Your task to perform on an android device: turn pop-ups on in chrome Image 0: 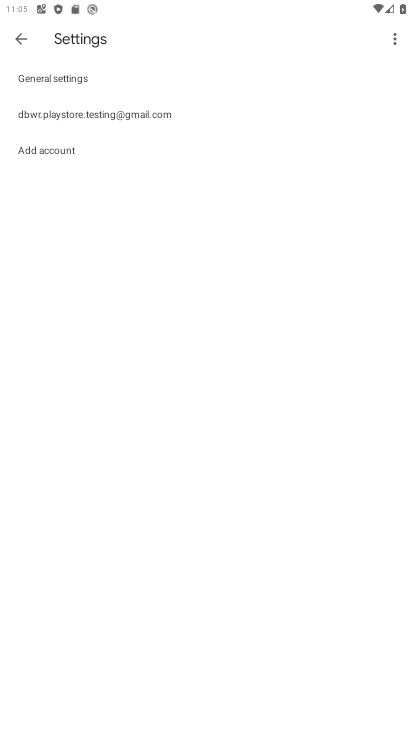
Step 0: press home button
Your task to perform on an android device: turn pop-ups on in chrome Image 1: 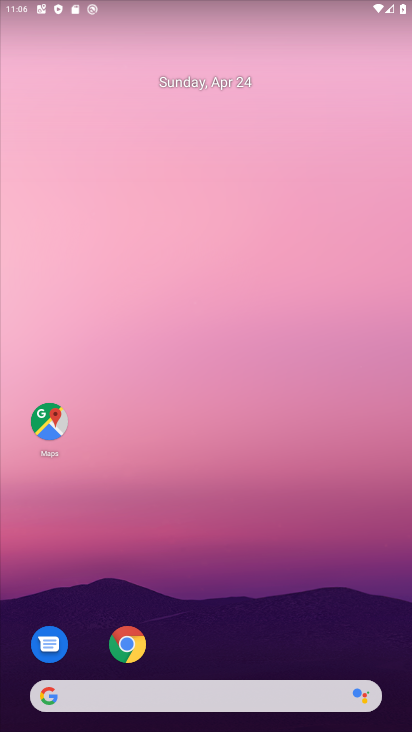
Step 1: click (131, 651)
Your task to perform on an android device: turn pop-ups on in chrome Image 2: 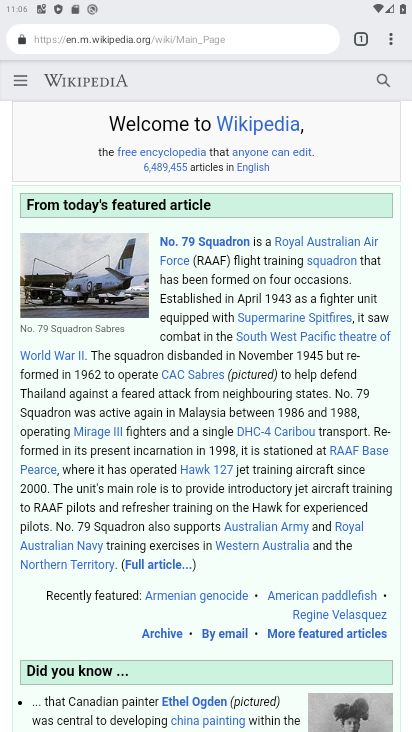
Step 2: drag from (393, 40) to (255, 479)
Your task to perform on an android device: turn pop-ups on in chrome Image 3: 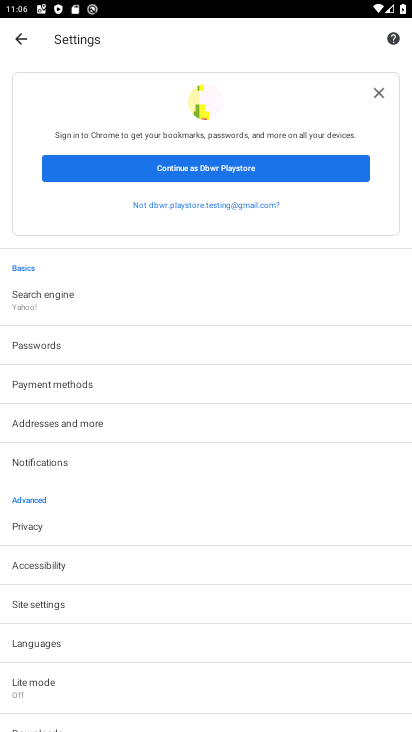
Step 3: click (50, 608)
Your task to perform on an android device: turn pop-ups on in chrome Image 4: 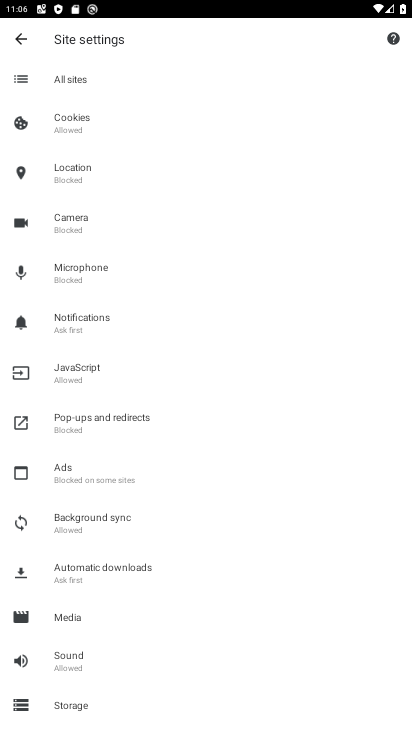
Step 4: click (68, 424)
Your task to perform on an android device: turn pop-ups on in chrome Image 5: 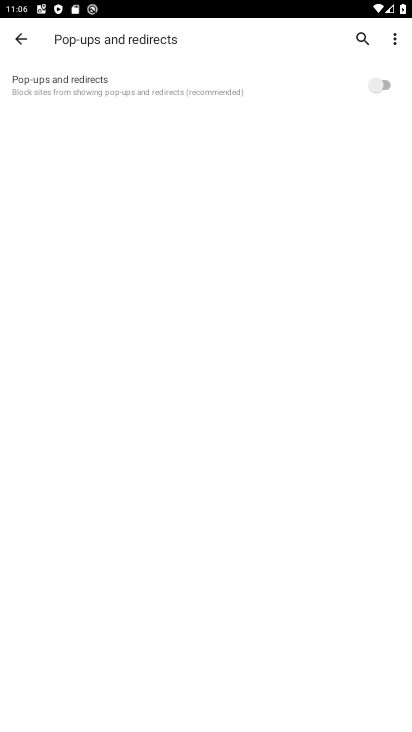
Step 5: click (377, 96)
Your task to perform on an android device: turn pop-ups on in chrome Image 6: 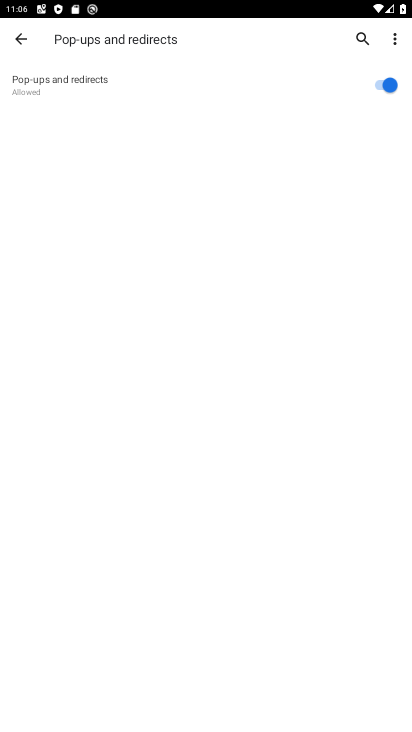
Step 6: task complete